Your task to perform on an android device: change timer sound Image 0: 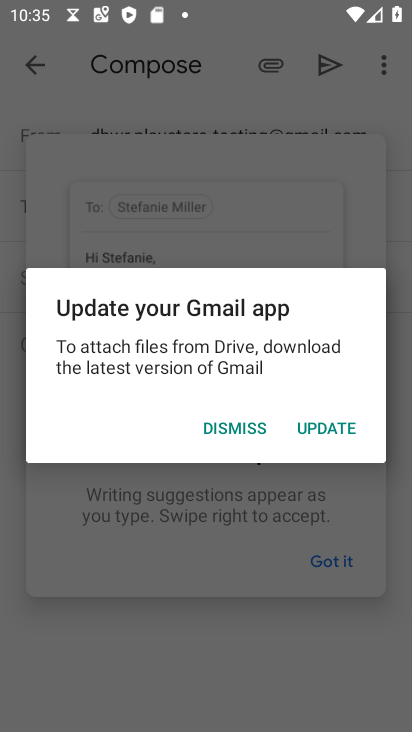
Step 0: press home button
Your task to perform on an android device: change timer sound Image 1: 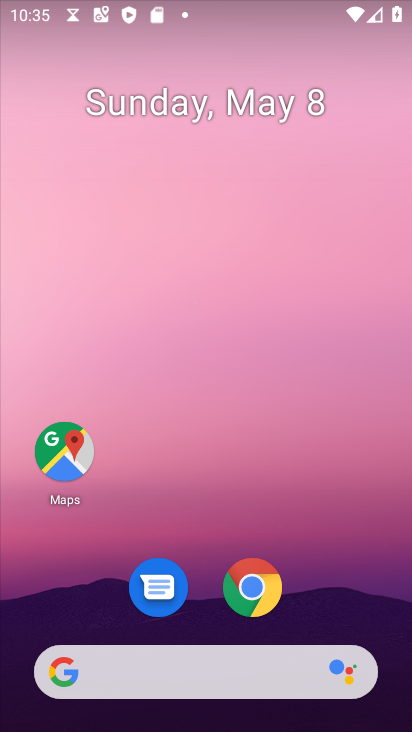
Step 1: drag from (305, 465) to (154, 139)
Your task to perform on an android device: change timer sound Image 2: 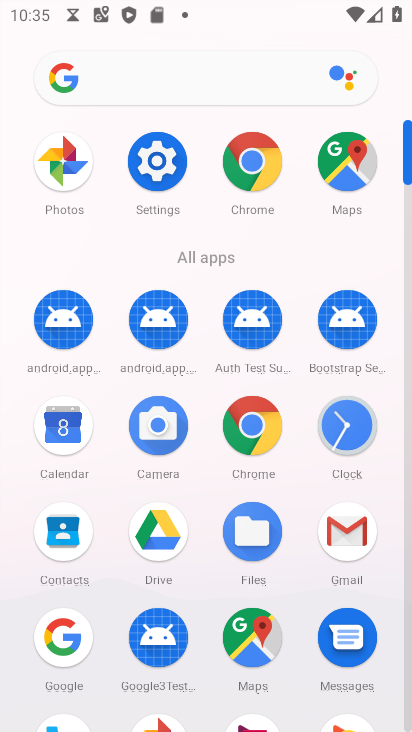
Step 2: click (352, 428)
Your task to perform on an android device: change timer sound Image 3: 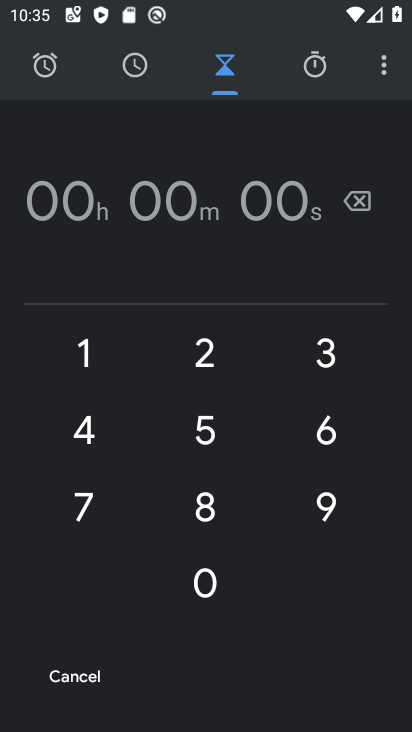
Step 3: click (386, 66)
Your task to perform on an android device: change timer sound Image 4: 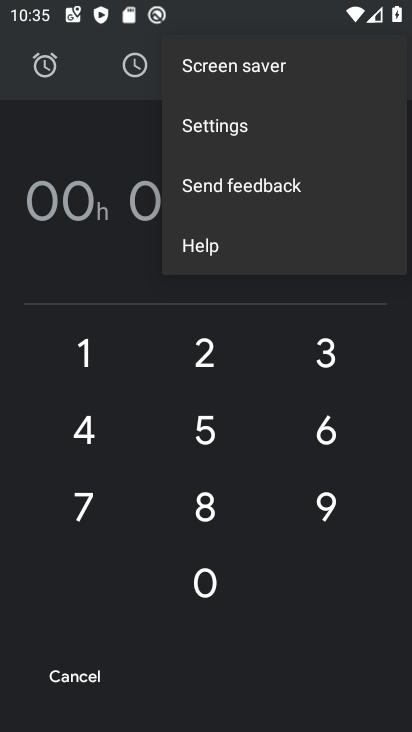
Step 4: click (219, 127)
Your task to perform on an android device: change timer sound Image 5: 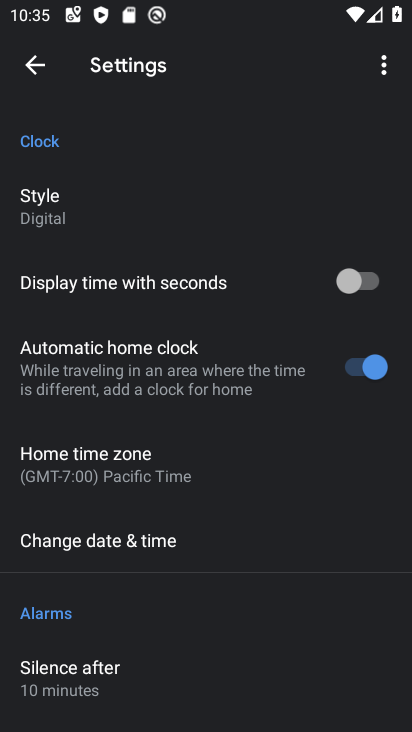
Step 5: drag from (142, 609) to (181, 132)
Your task to perform on an android device: change timer sound Image 6: 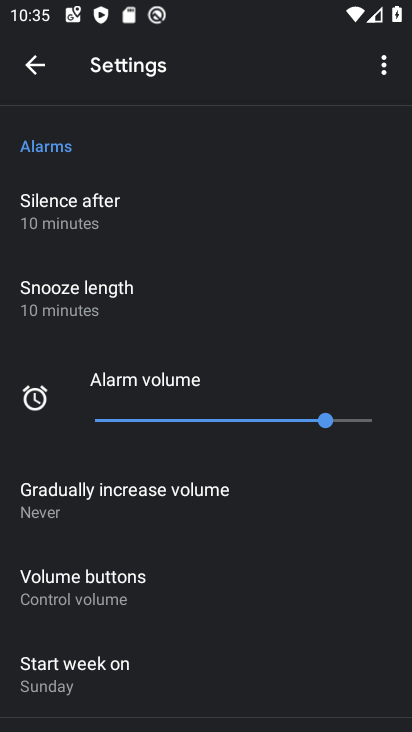
Step 6: drag from (205, 626) to (209, 228)
Your task to perform on an android device: change timer sound Image 7: 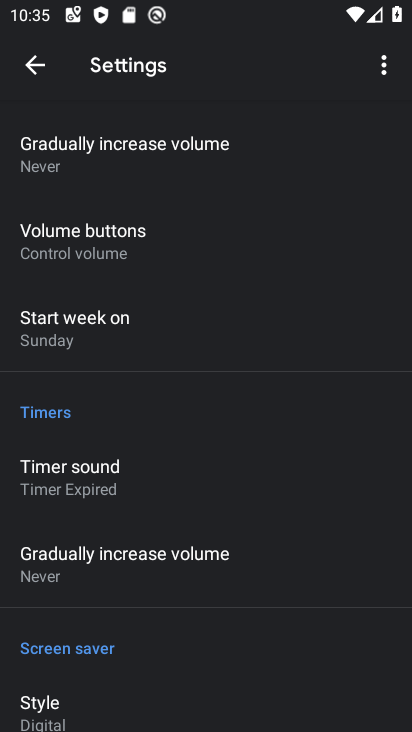
Step 7: click (74, 475)
Your task to perform on an android device: change timer sound Image 8: 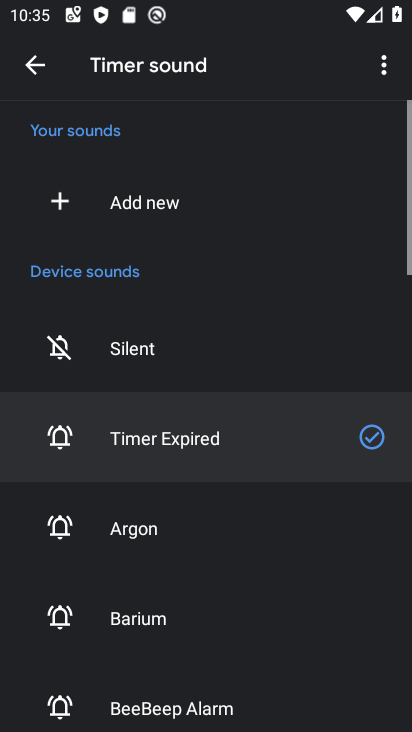
Step 8: drag from (157, 671) to (183, 290)
Your task to perform on an android device: change timer sound Image 9: 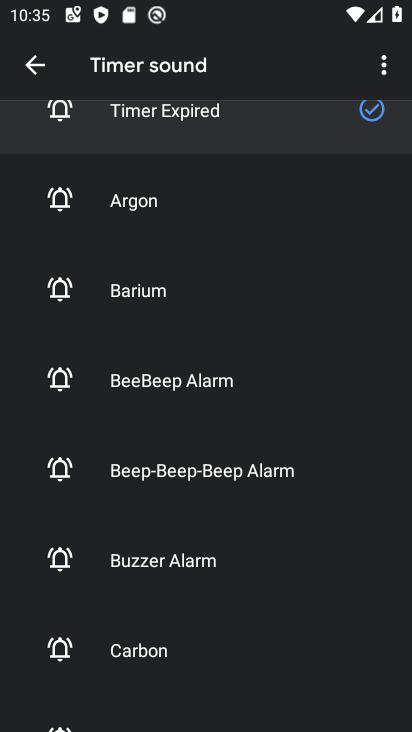
Step 9: click (165, 601)
Your task to perform on an android device: change timer sound Image 10: 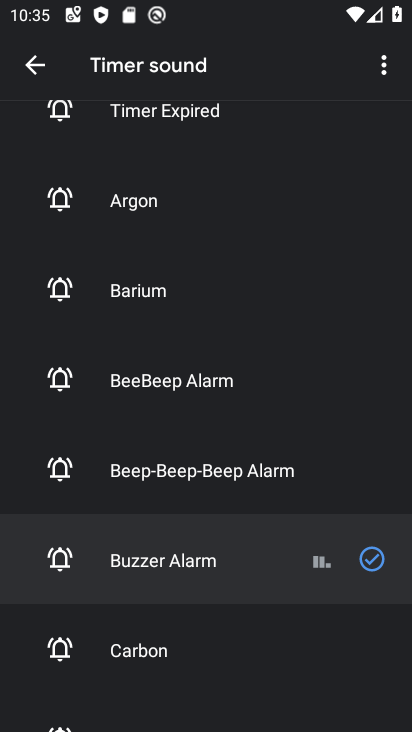
Step 10: task complete